Your task to perform on an android device: Go to wifi settings Image 0: 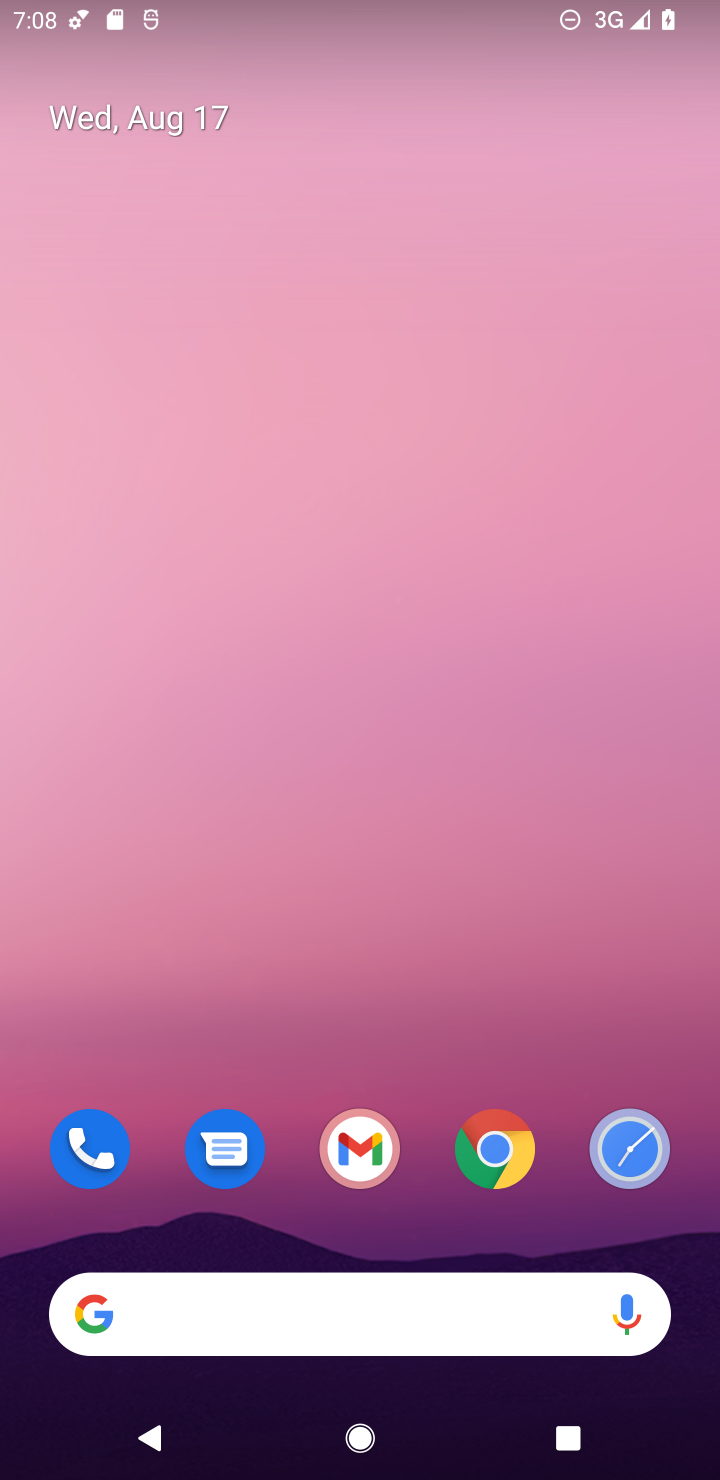
Step 0: drag from (432, 1214) to (307, 384)
Your task to perform on an android device: Go to wifi settings Image 1: 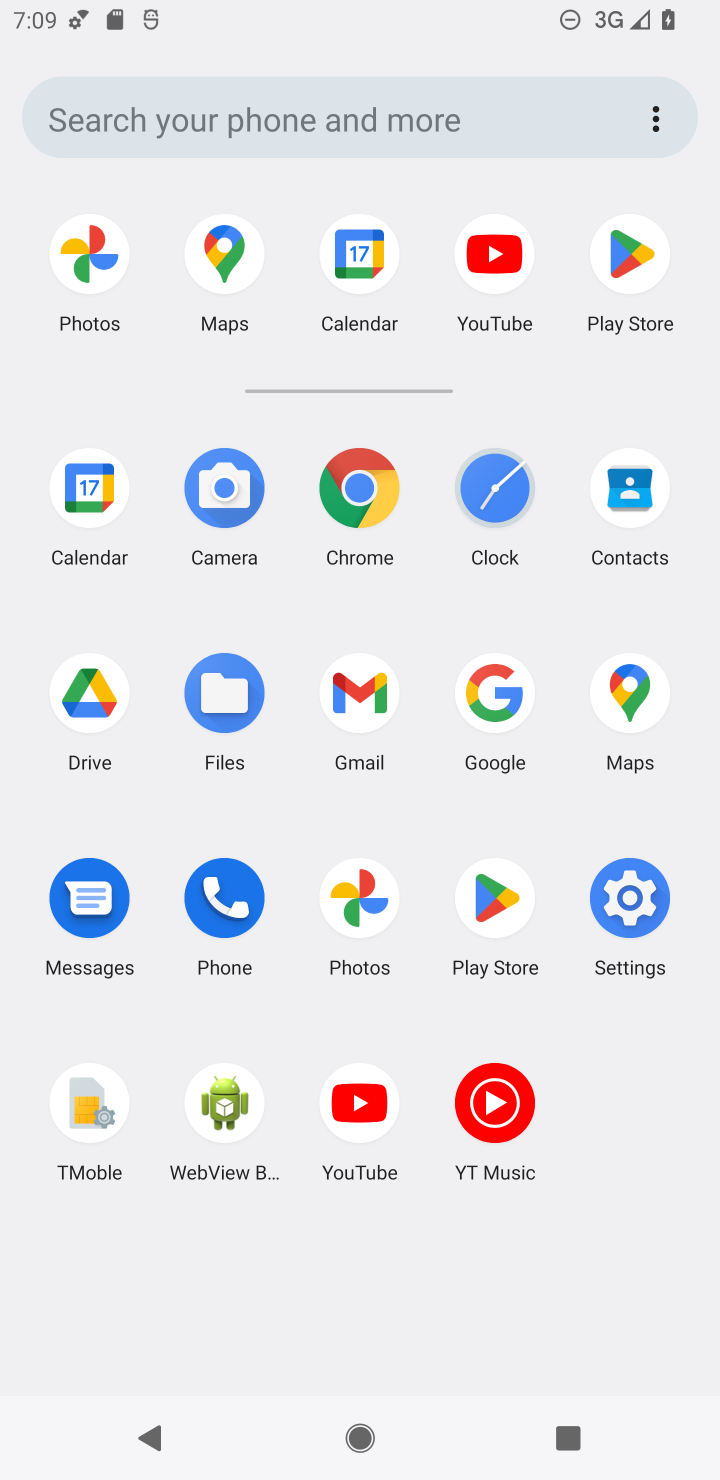
Step 1: click (639, 903)
Your task to perform on an android device: Go to wifi settings Image 2: 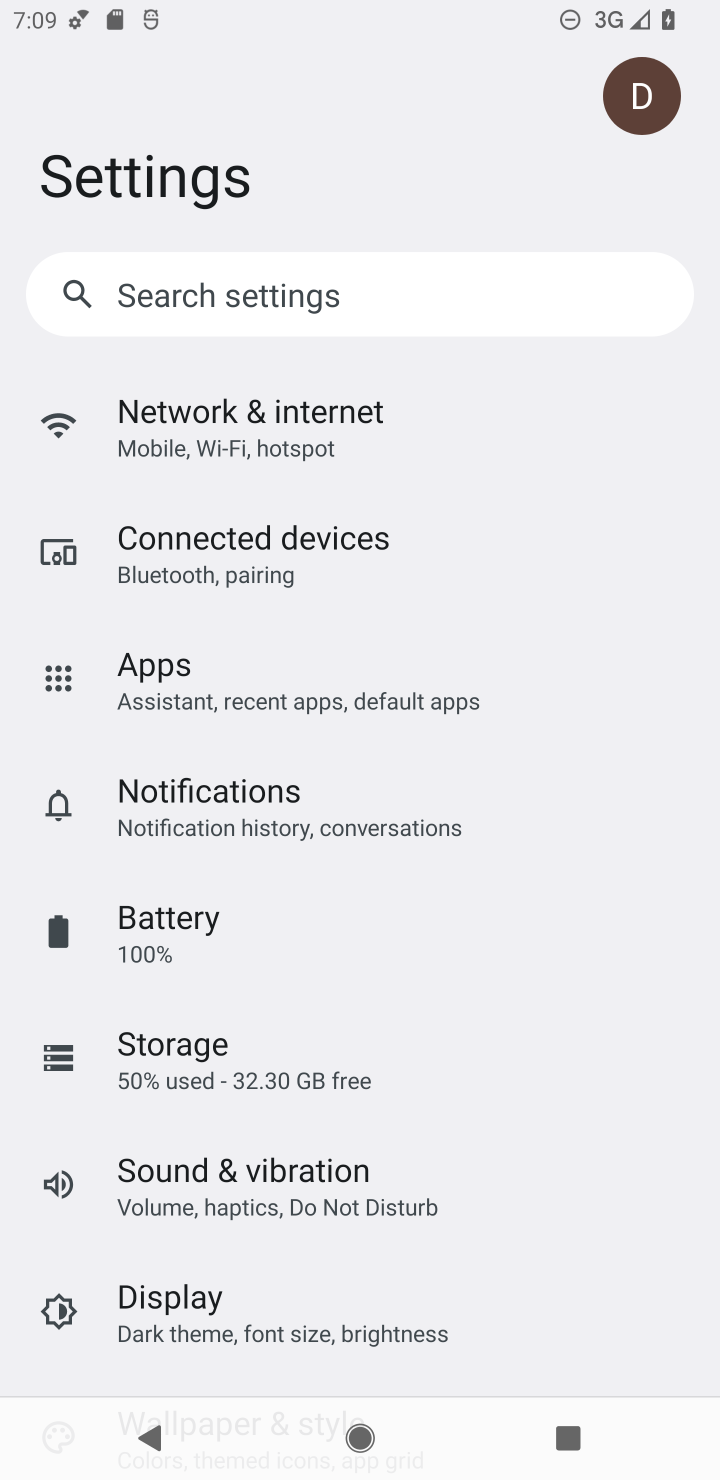
Step 2: click (249, 412)
Your task to perform on an android device: Go to wifi settings Image 3: 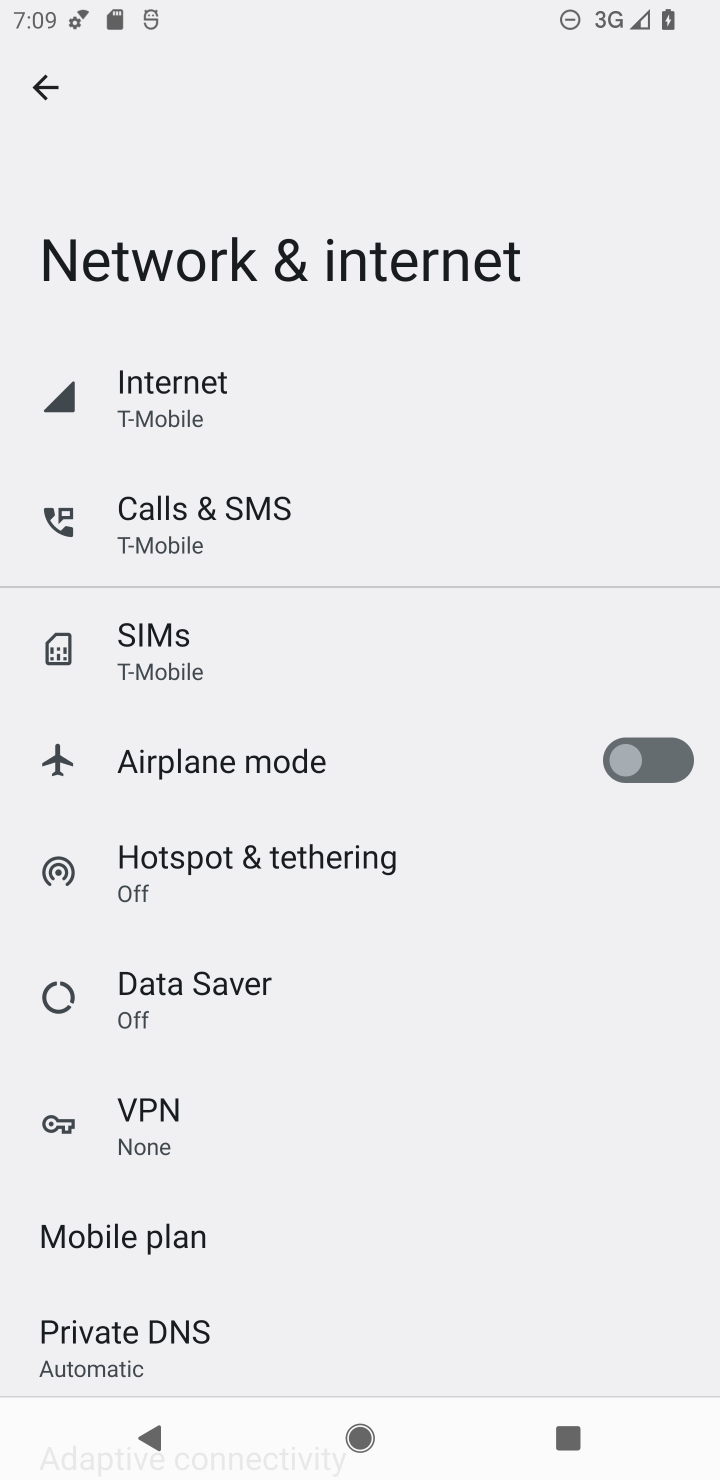
Step 3: click (171, 374)
Your task to perform on an android device: Go to wifi settings Image 4: 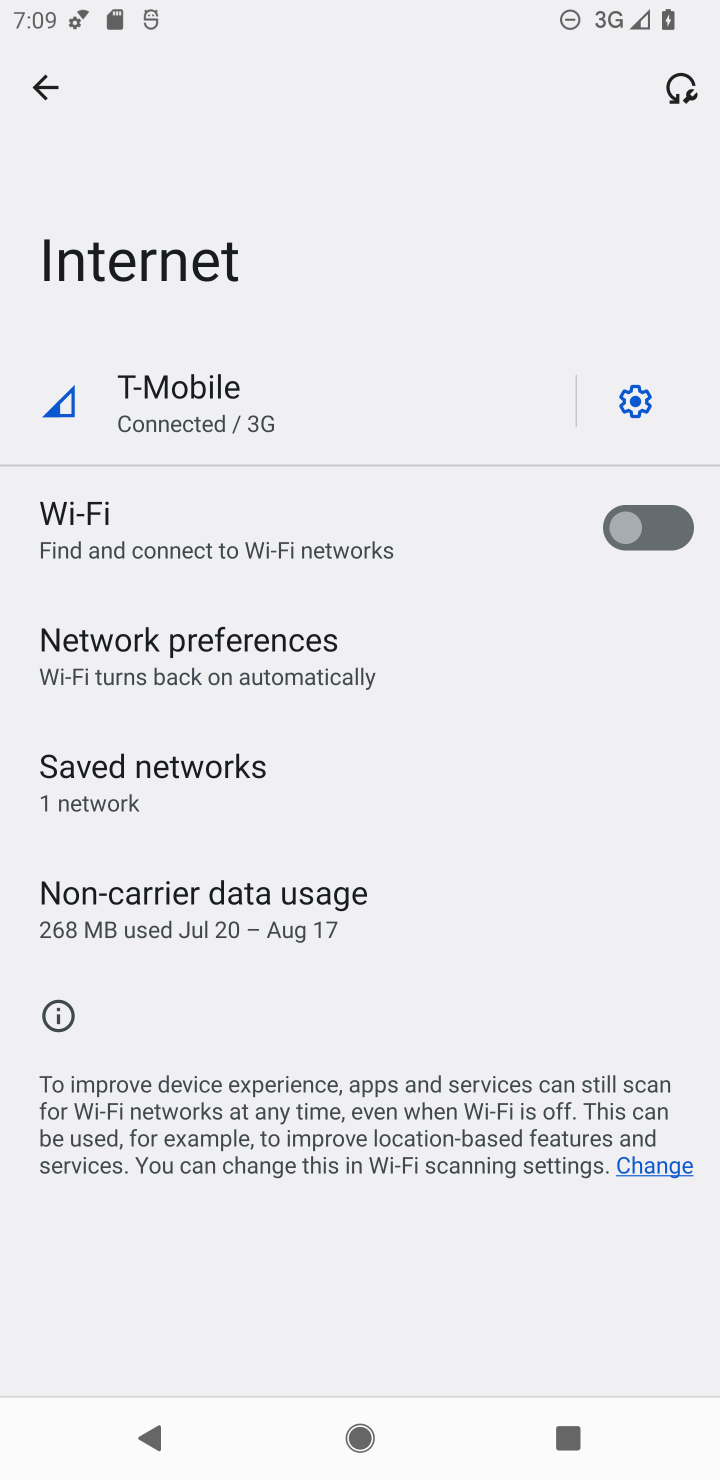
Step 4: task complete